Your task to perform on an android device: Open privacy settings Image 0: 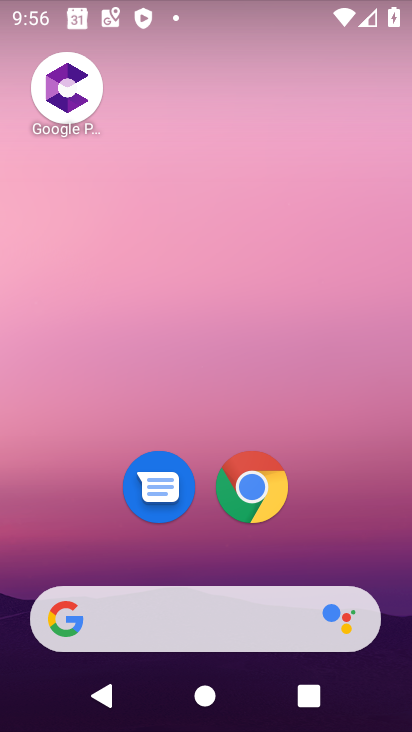
Step 0: press home button
Your task to perform on an android device: Open privacy settings Image 1: 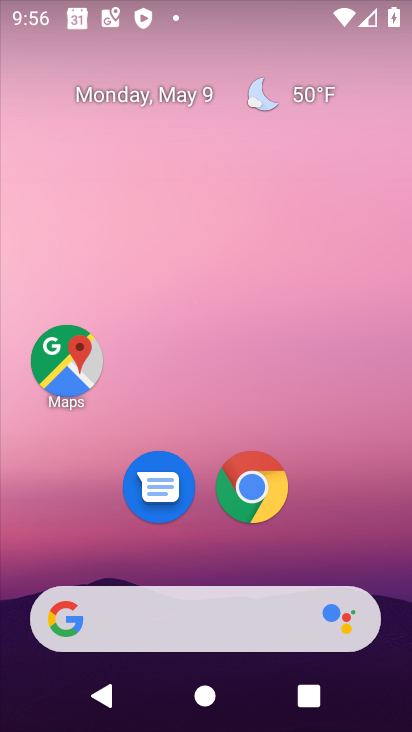
Step 1: drag from (156, 728) to (297, 182)
Your task to perform on an android device: Open privacy settings Image 2: 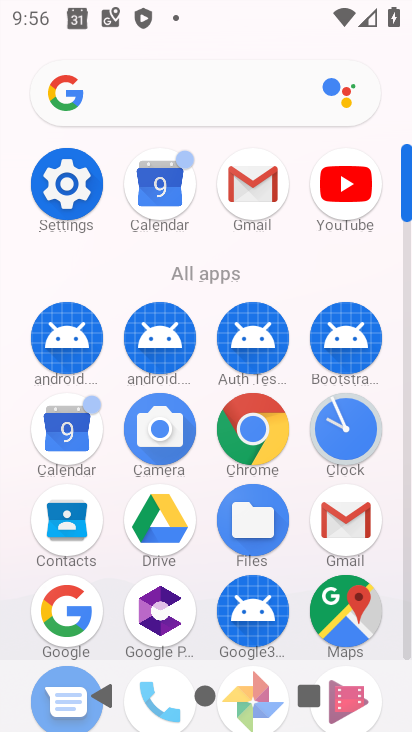
Step 2: click (62, 186)
Your task to perform on an android device: Open privacy settings Image 3: 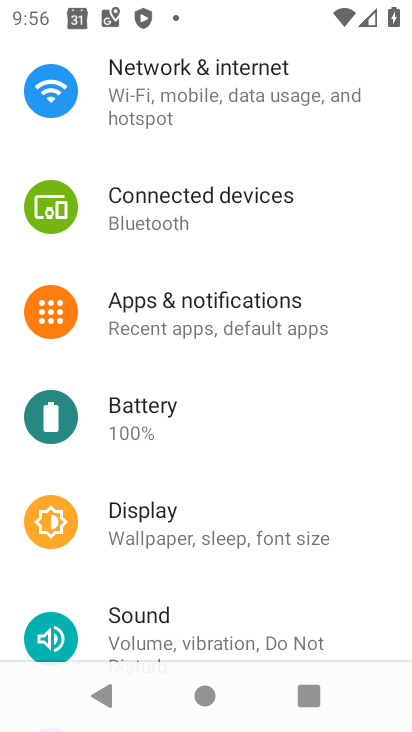
Step 3: drag from (89, 610) to (273, 217)
Your task to perform on an android device: Open privacy settings Image 4: 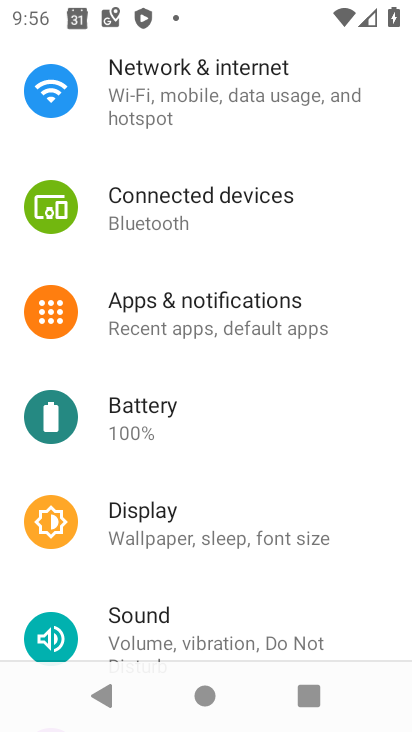
Step 4: drag from (31, 586) to (268, 163)
Your task to perform on an android device: Open privacy settings Image 5: 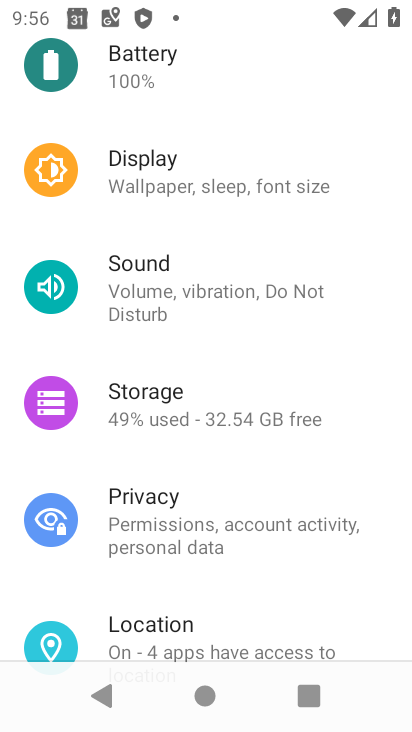
Step 5: click (143, 517)
Your task to perform on an android device: Open privacy settings Image 6: 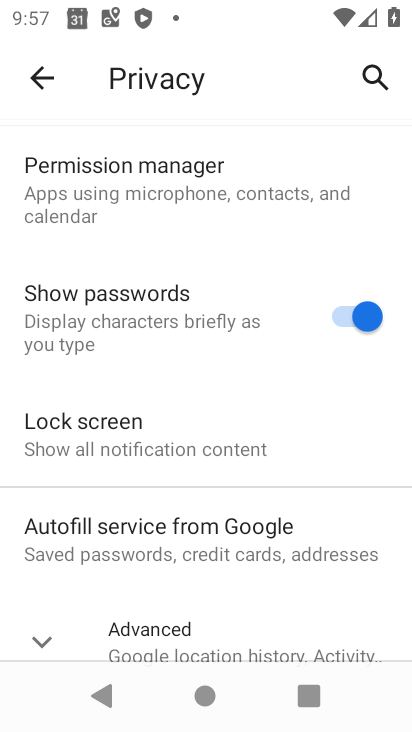
Step 6: task complete